Your task to perform on an android device: Go to Google Image 0: 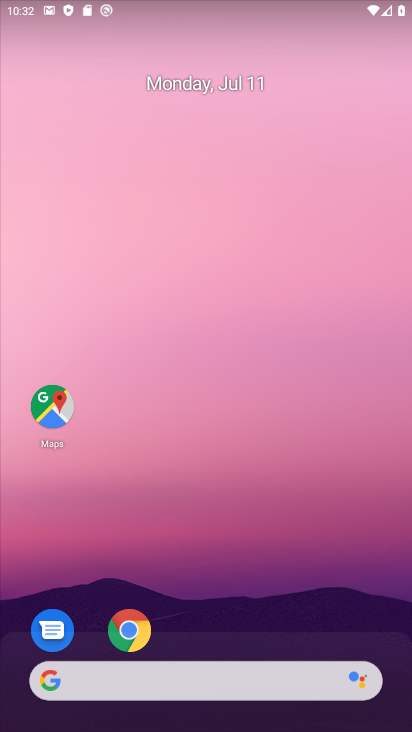
Step 0: drag from (268, 546) to (236, 41)
Your task to perform on an android device: Go to Google Image 1: 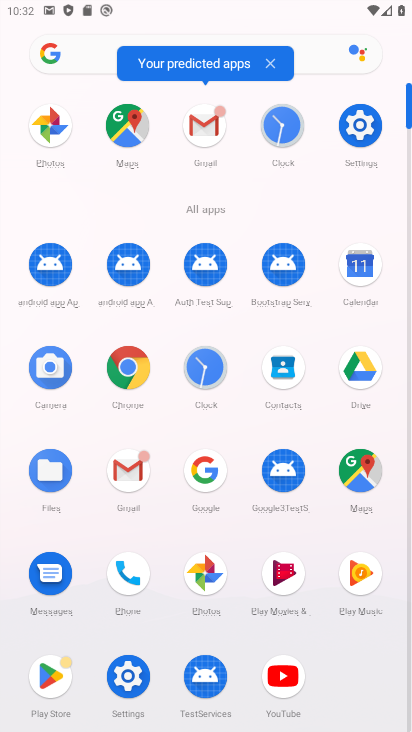
Step 1: click (208, 473)
Your task to perform on an android device: Go to Google Image 2: 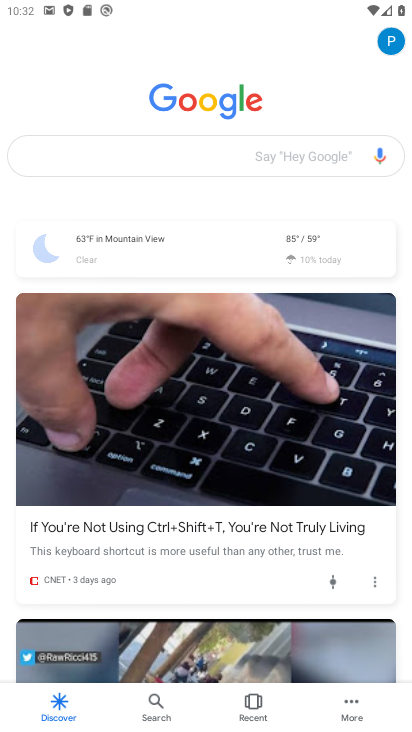
Step 2: task complete